Your task to perform on an android device: Open Maps and search for coffee Image 0: 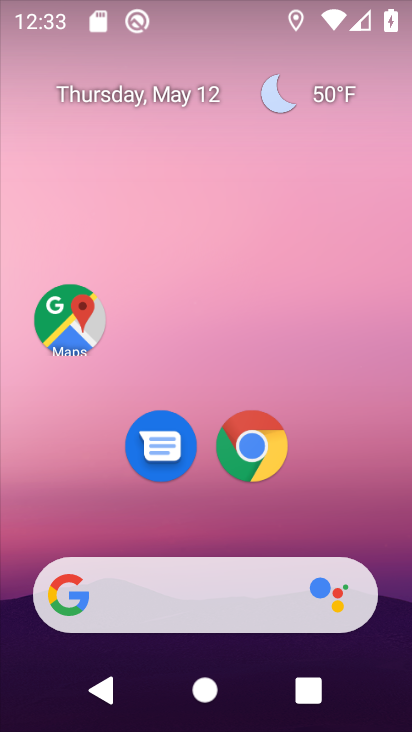
Step 0: drag from (367, 534) to (367, 36)
Your task to perform on an android device: Open Maps and search for coffee Image 1: 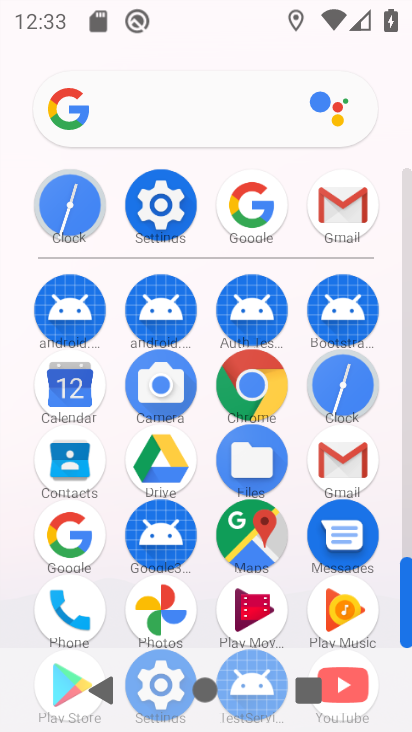
Step 1: click (339, 464)
Your task to perform on an android device: Open Maps and search for coffee Image 2: 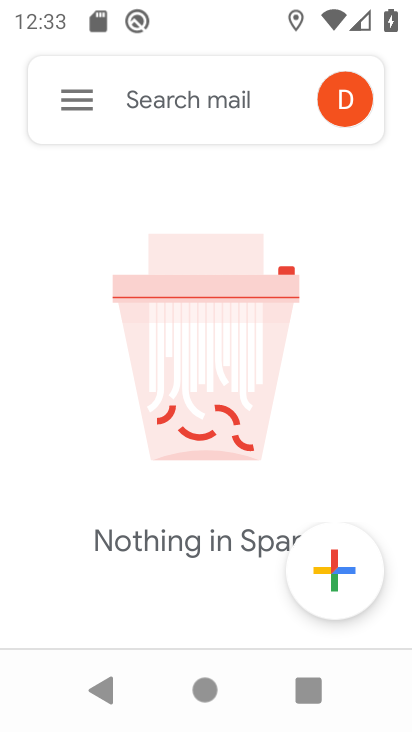
Step 2: press home button
Your task to perform on an android device: Open Maps and search for coffee Image 3: 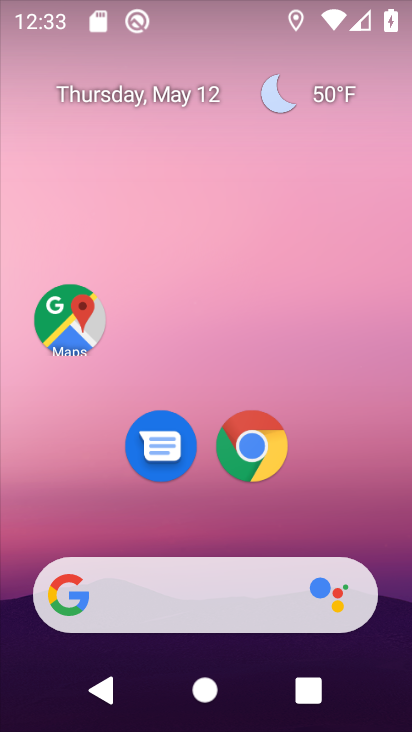
Step 3: click (81, 306)
Your task to perform on an android device: Open Maps and search for coffee Image 4: 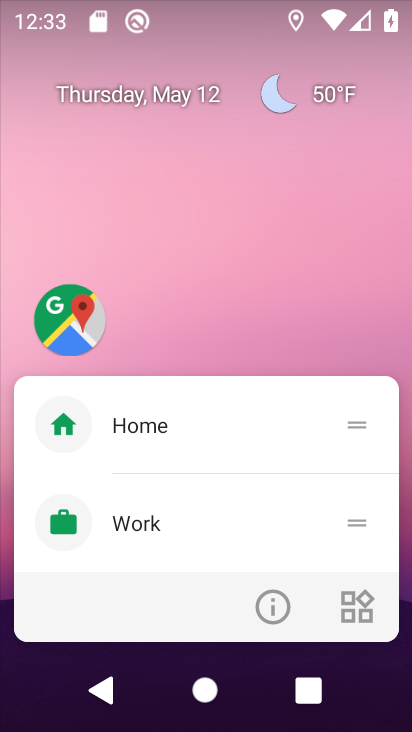
Step 4: click (34, 296)
Your task to perform on an android device: Open Maps and search for coffee Image 5: 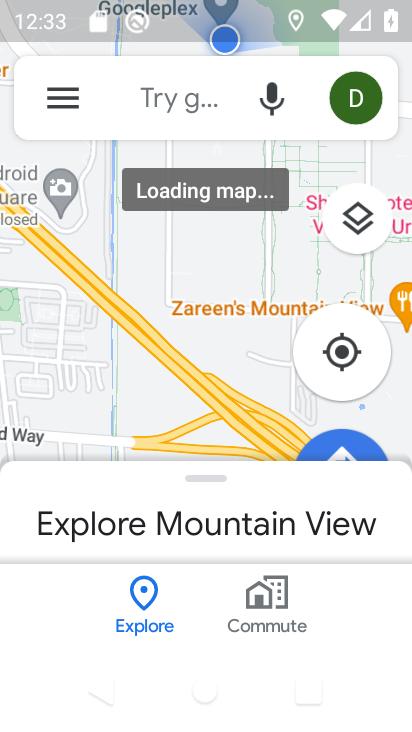
Step 5: click (148, 87)
Your task to perform on an android device: Open Maps and search for coffee Image 6: 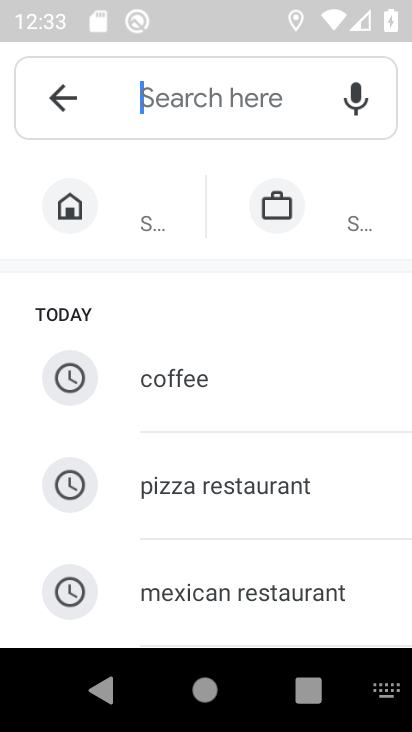
Step 6: click (205, 387)
Your task to perform on an android device: Open Maps and search for coffee Image 7: 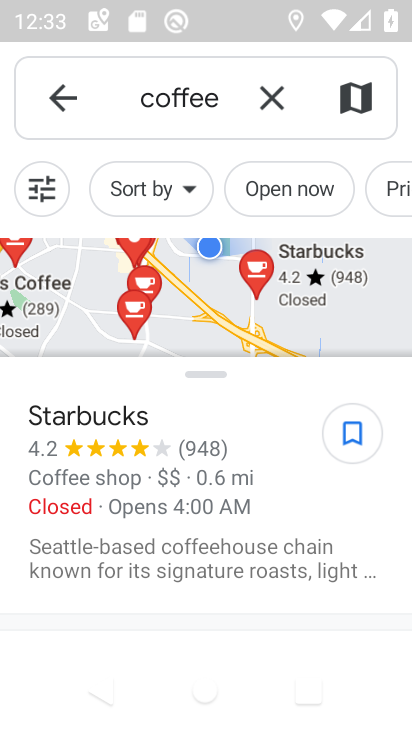
Step 7: task complete